Your task to perform on an android device: toggle pop-ups in chrome Image 0: 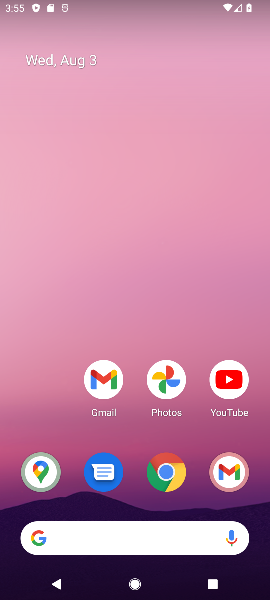
Step 0: click (169, 488)
Your task to perform on an android device: toggle pop-ups in chrome Image 1: 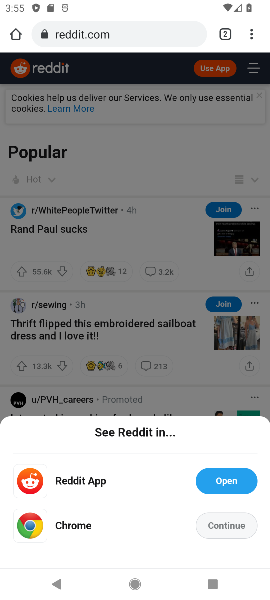
Step 1: drag from (251, 32) to (153, 477)
Your task to perform on an android device: toggle pop-ups in chrome Image 2: 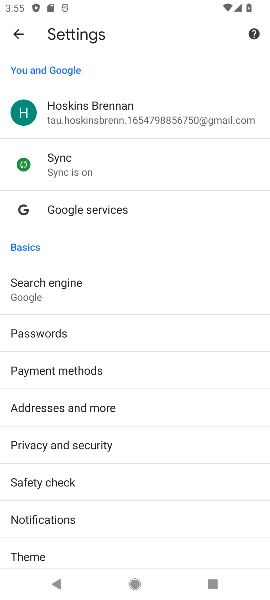
Step 2: drag from (120, 494) to (218, 49)
Your task to perform on an android device: toggle pop-ups in chrome Image 3: 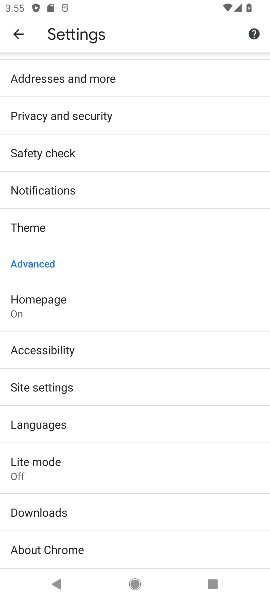
Step 3: click (67, 380)
Your task to perform on an android device: toggle pop-ups in chrome Image 4: 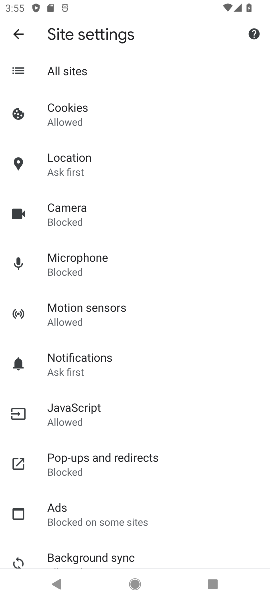
Step 4: click (81, 461)
Your task to perform on an android device: toggle pop-ups in chrome Image 5: 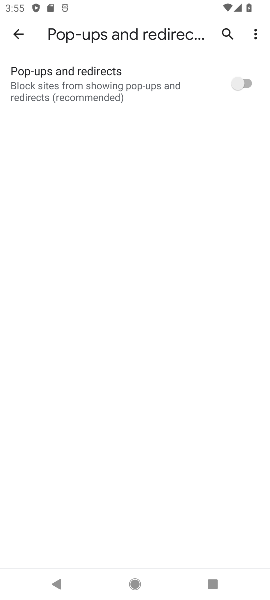
Step 5: click (232, 79)
Your task to perform on an android device: toggle pop-ups in chrome Image 6: 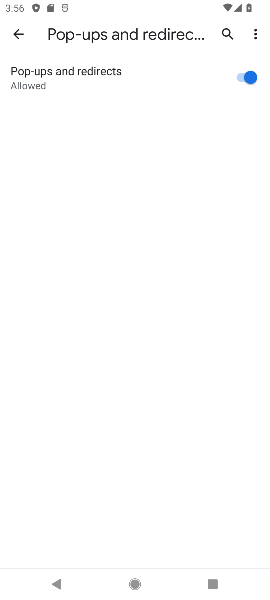
Step 6: task complete